Your task to perform on an android device: Open the calendar app, open the side menu, and click the "Day" option Image 0: 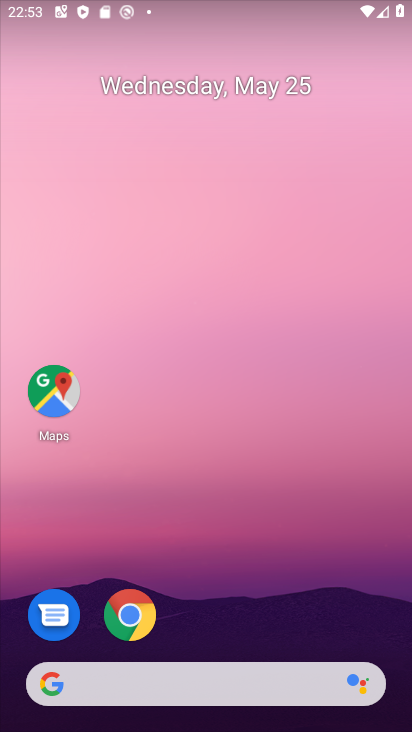
Step 0: drag from (293, 439) to (293, 152)
Your task to perform on an android device: Open the calendar app, open the side menu, and click the "Day" option Image 1: 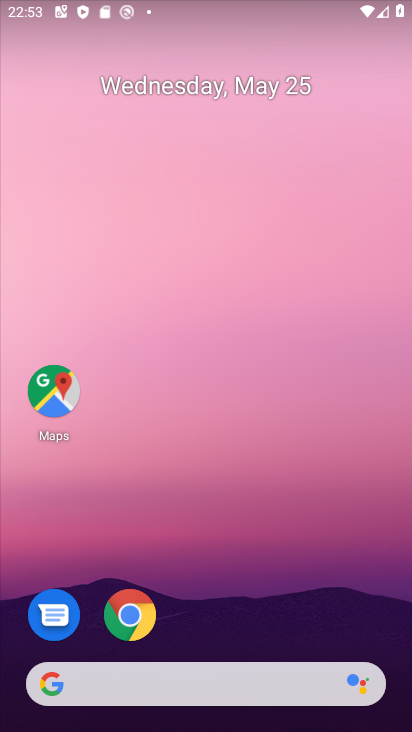
Step 1: drag from (253, 450) to (408, 199)
Your task to perform on an android device: Open the calendar app, open the side menu, and click the "Day" option Image 2: 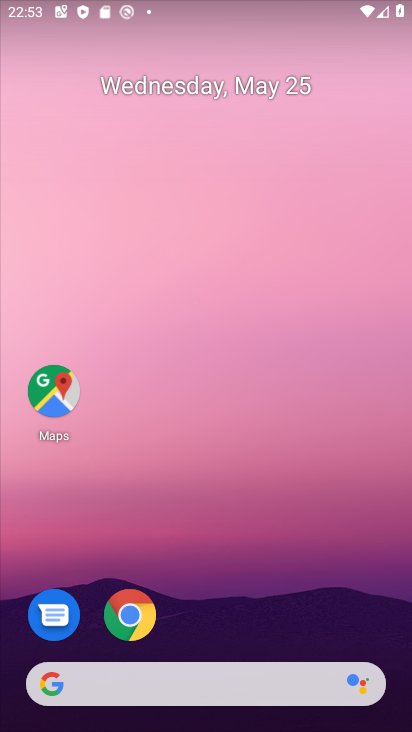
Step 2: drag from (283, 567) to (282, 6)
Your task to perform on an android device: Open the calendar app, open the side menu, and click the "Day" option Image 3: 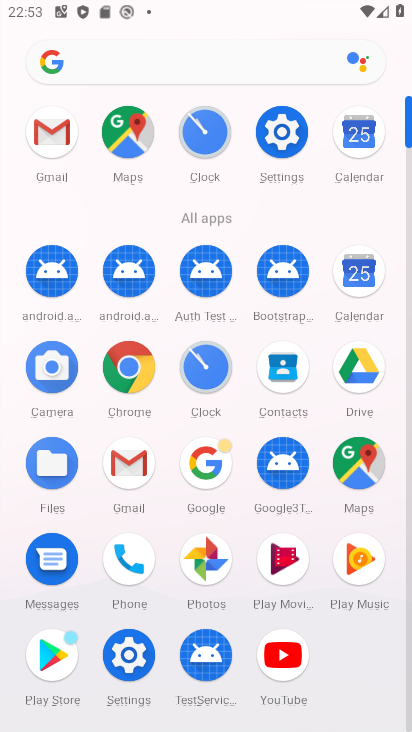
Step 3: click (361, 267)
Your task to perform on an android device: Open the calendar app, open the side menu, and click the "Day" option Image 4: 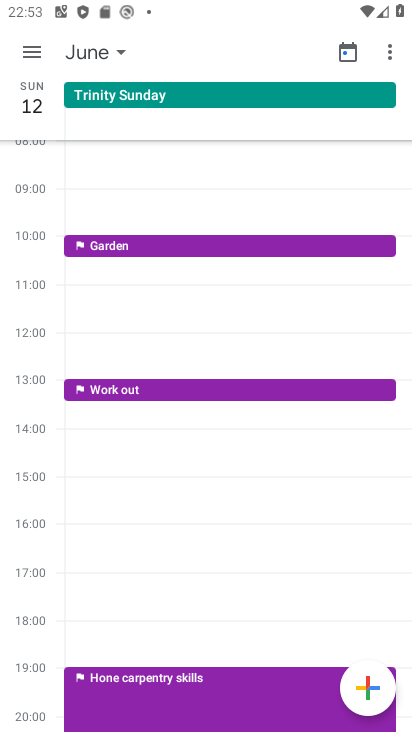
Step 4: click (43, 49)
Your task to perform on an android device: Open the calendar app, open the side menu, and click the "Day" option Image 5: 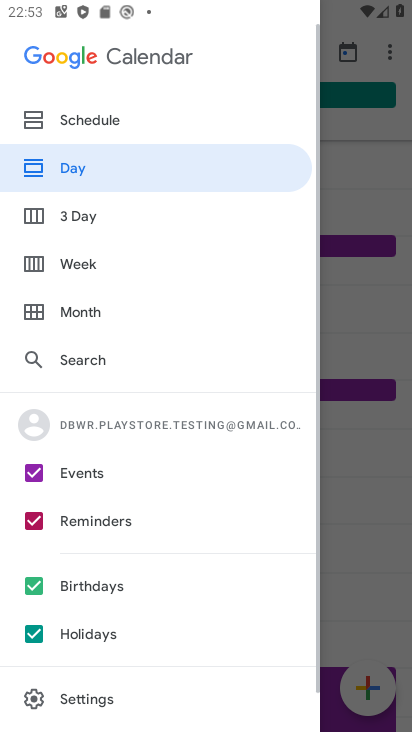
Step 5: click (75, 170)
Your task to perform on an android device: Open the calendar app, open the side menu, and click the "Day" option Image 6: 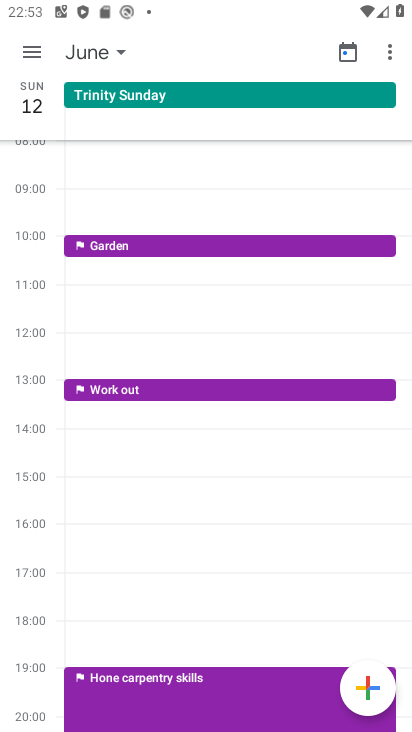
Step 6: task complete